Your task to perform on an android device: delete browsing data in the chrome app Image 0: 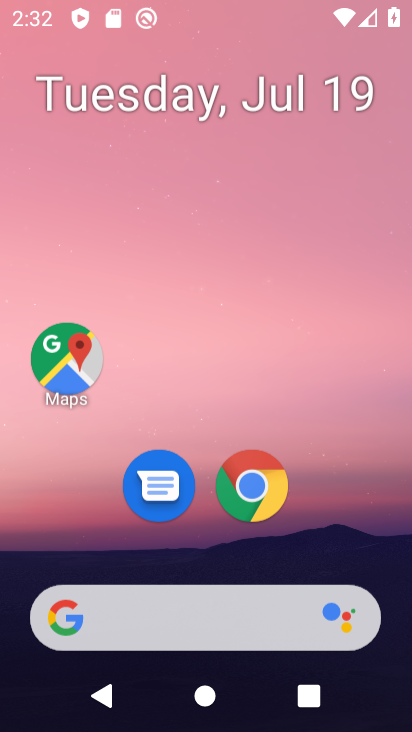
Step 0: click (230, 73)
Your task to perform on an android device: delete browsing data in the chrome app Image 1: 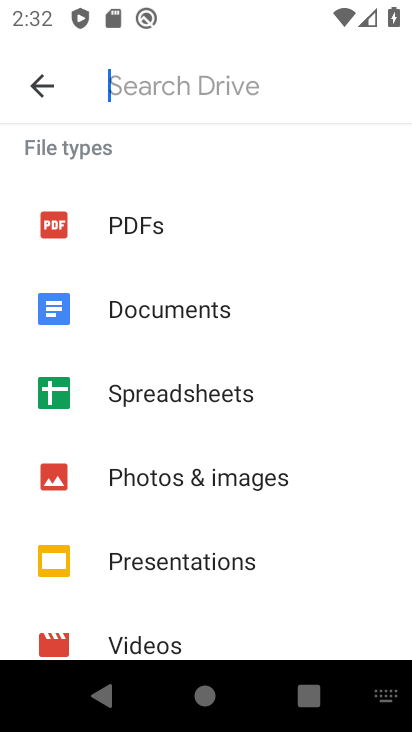
Step 1: press back button
Your task to perform on an android device: delete browsing data in the chrome app Image 2: 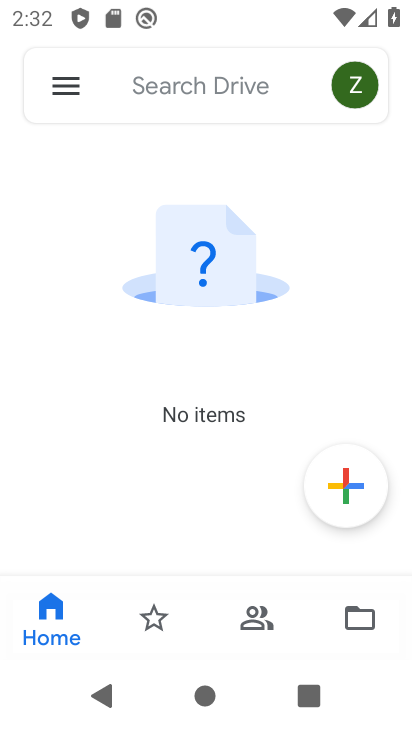
Step 2: press back button
Your task to perform on an android device: delete browsing data in the chrome app Image 3: 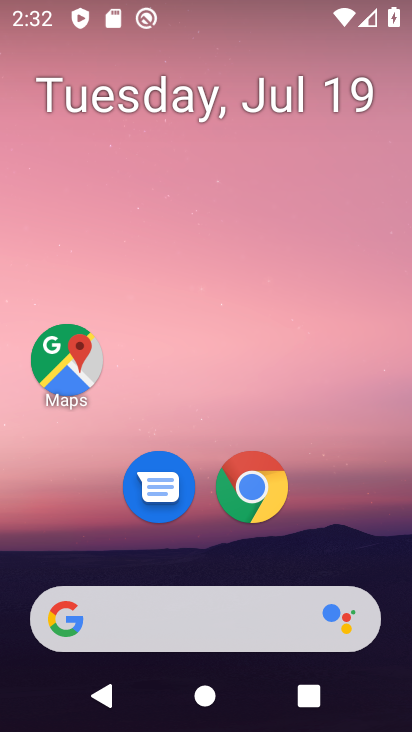
Step 3: drag from (150, 575) to (319, 61)
Your task to perform on an android device: delete browsing data in the chrome app Image 4: 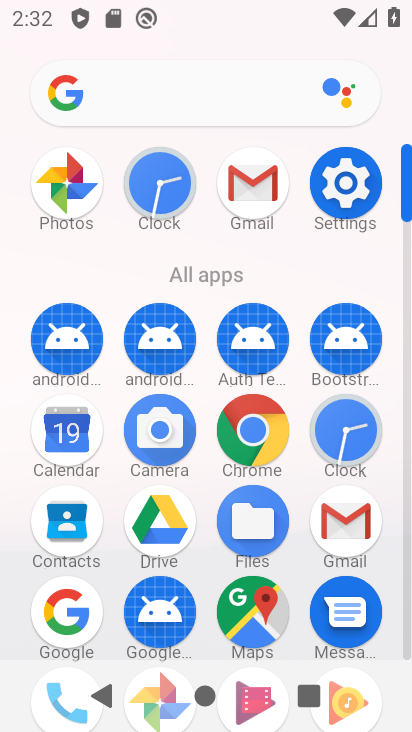
Step 4: click (246, 431)
Your task to perform on an android device: delete browsing data in the chrome app Image 5: 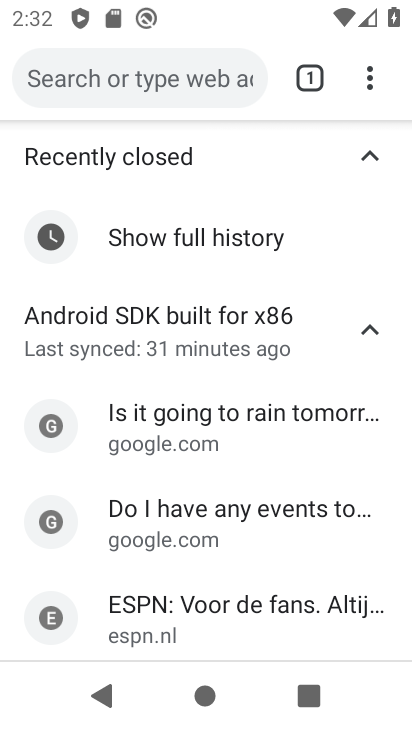
Step 5: drag from (138, 179) to (179, 664)
Your task to perform on an android device: delete browsing data in the chrome app Image 6: 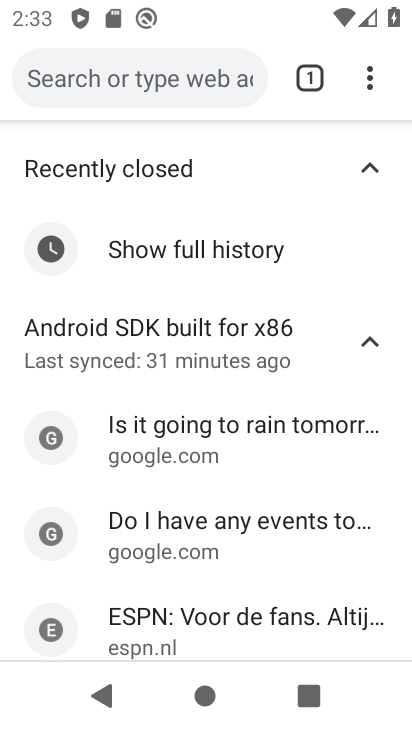
Step 6: drag from (369, 69) to (104, 444)
Your task to perform on an android device: delete browsing data in the chrome app Image 7: 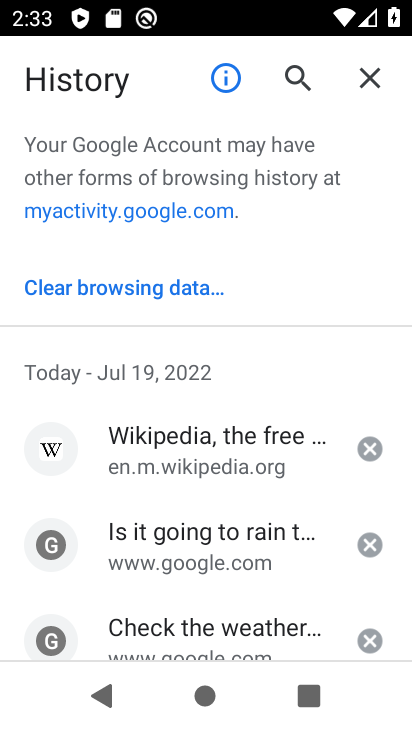
Step 7: click (191, 306)
Your task to perform on an android device: delete browsing data in the chrome app Image 8: 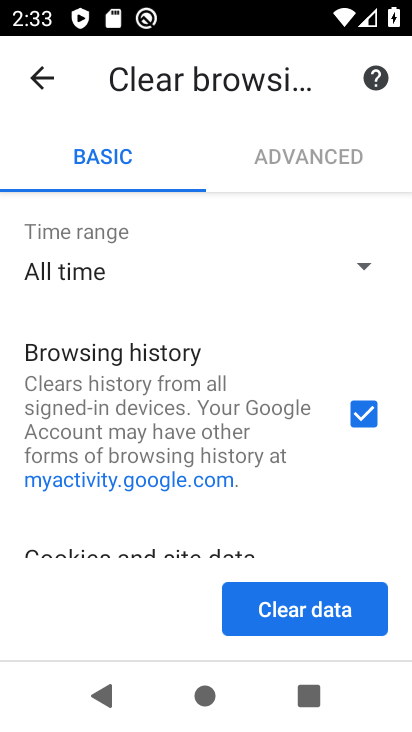
Step 8: drag from (225, 510) to (311, 336)
Your task to perform on an android device: delete browsing data in the chrome app Image 9: 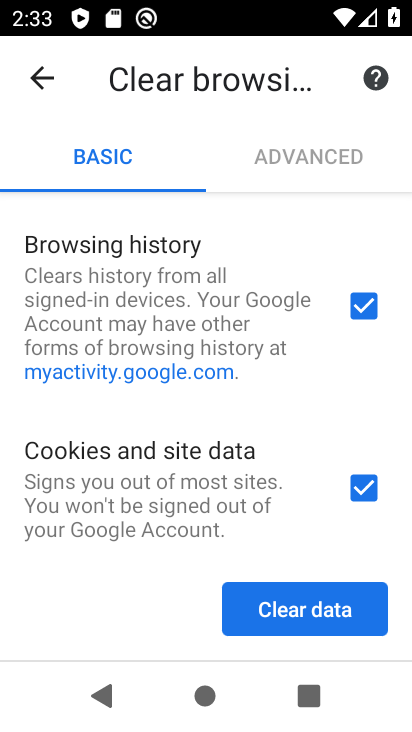
Step 9: click (279, 608)
Your task to perform on an android device: delete browsing data in the chrome app Image 10: 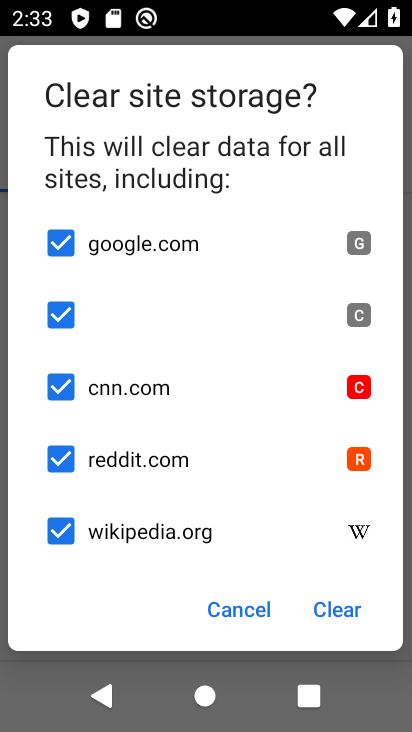
Step 10: click (324, 612)
Your task to perform on an android device: delete browsing data in the chrome app Image 11: 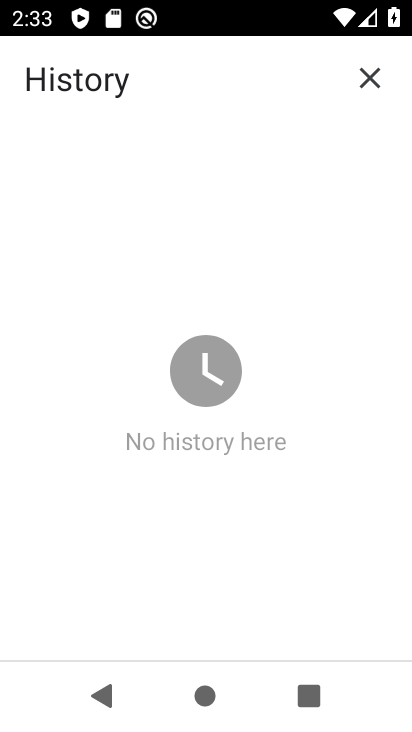
Step 11: task complete